Your task to perform on an android device: search for starred emails in the gmail app Image 0: 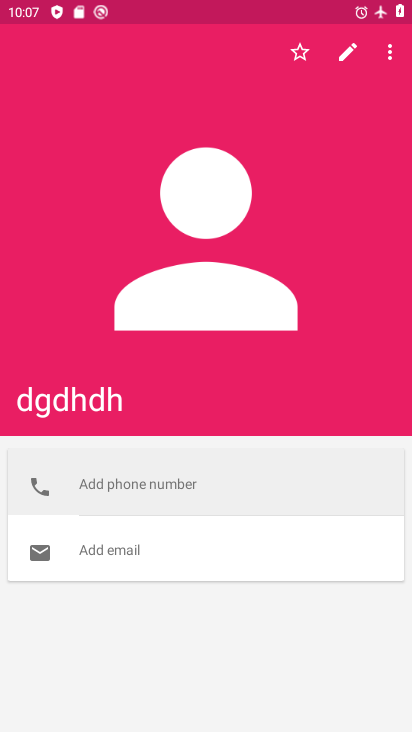
Step 0: press home button
Your task to perform on an android device: search for starred emails in the gmail app Image 1: 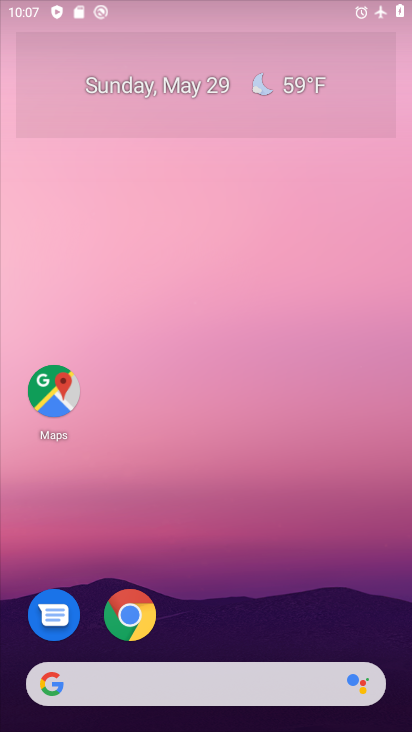
Step 1: drag from (302, 616) to (314, 32)
Your task to perform on an android device: search for starred emails in the gmail app Image 2: 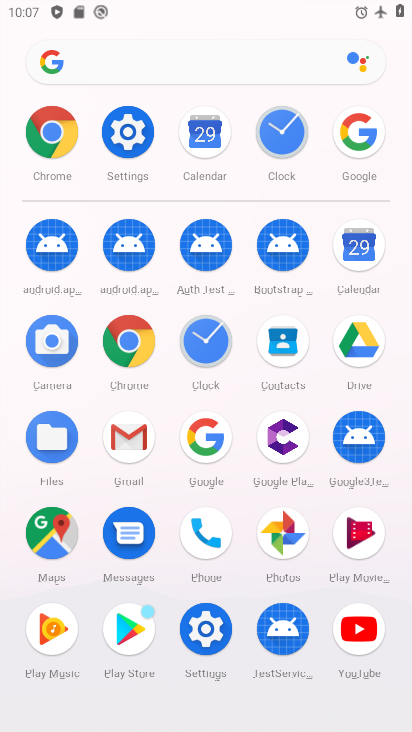
Step 2: click (143, 446)
Your task to perform on an android device: search for starred emails in the gmail app Image 3: 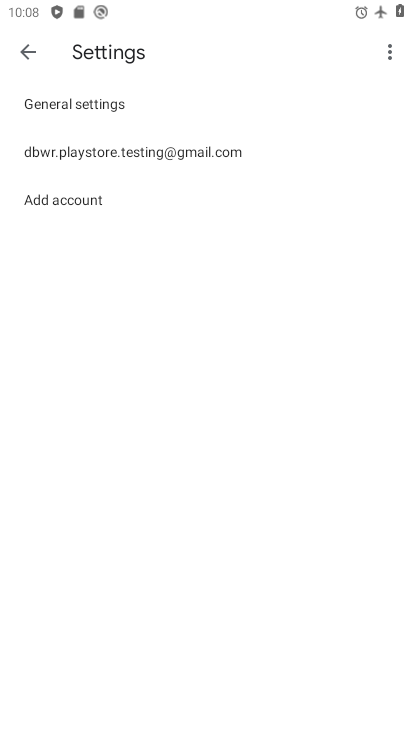
Step 3: press back button
Your task to perform on an android device: search for starred emails in the gmail app Image 4: 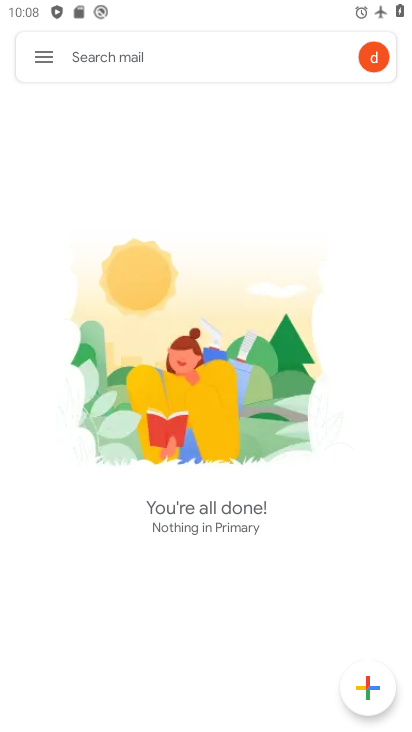
Step 4: click (60, 57)
Your task to perform on an android device: search for starred emails in the gmail app Image 5: 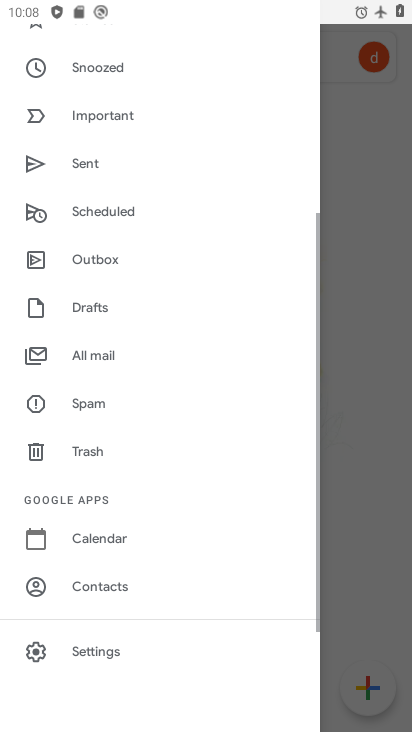
Step 5: drag from (169, 290) to (233, 506)
Your task to perform on an android device: search for starred emails in the gmail app Image 6: 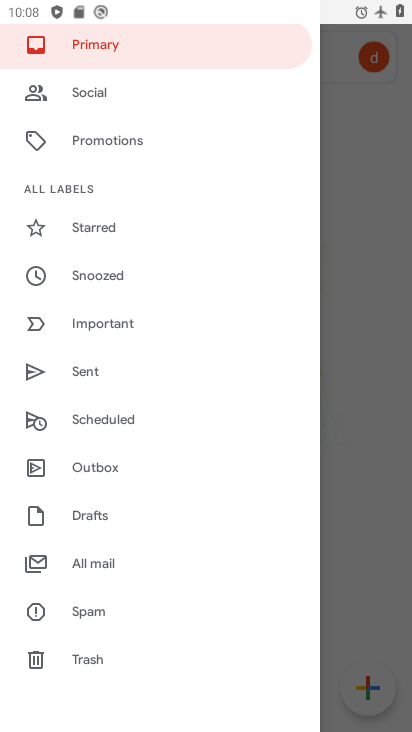
Step 6: click (99, 232)
Your task to perform on an android device: search for starred emails in the gmail app Image 7: 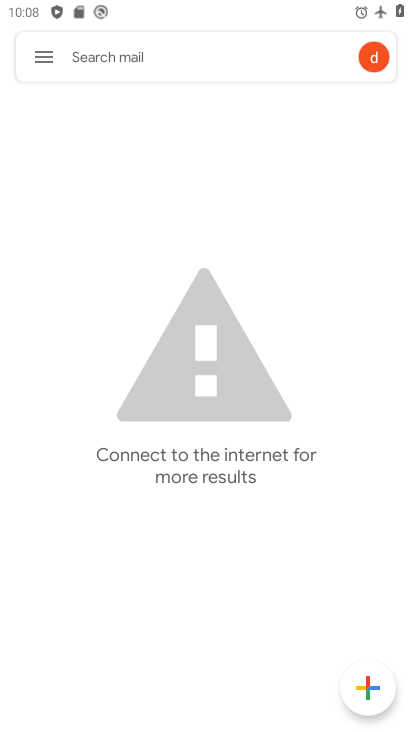
Step 7: task complete